Your task to perform on an android device: Check the settings for the Google Play Store app Image 0: 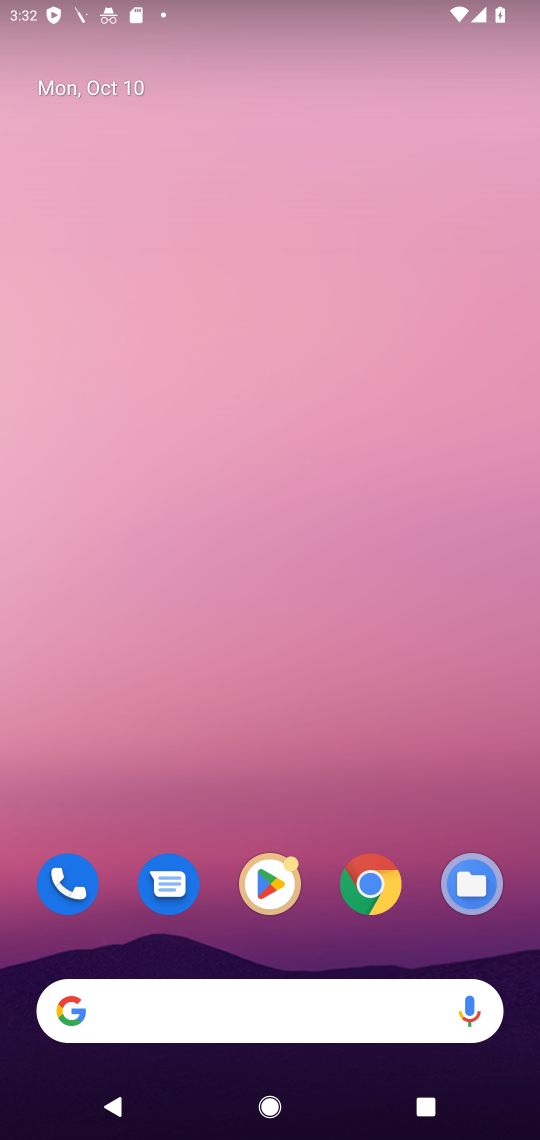
Step 0: press home button
Your task to perform on an android device: Check the settings for the Google Play Store app Image 1: 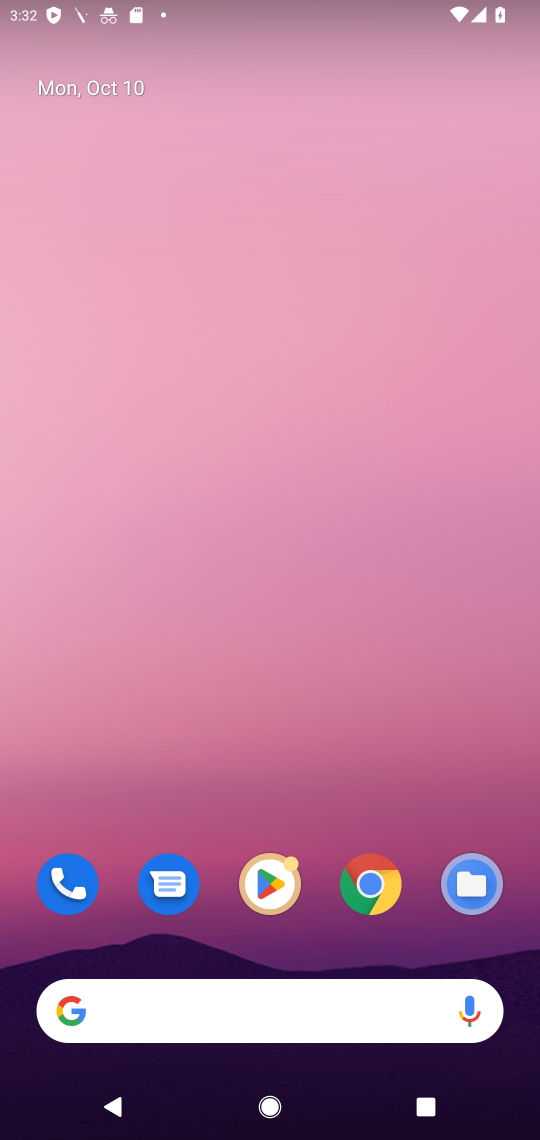
Step 1: click (264, 882)
Your task to perform on an android device: Check the settings for the Google Play Store app Image 2: 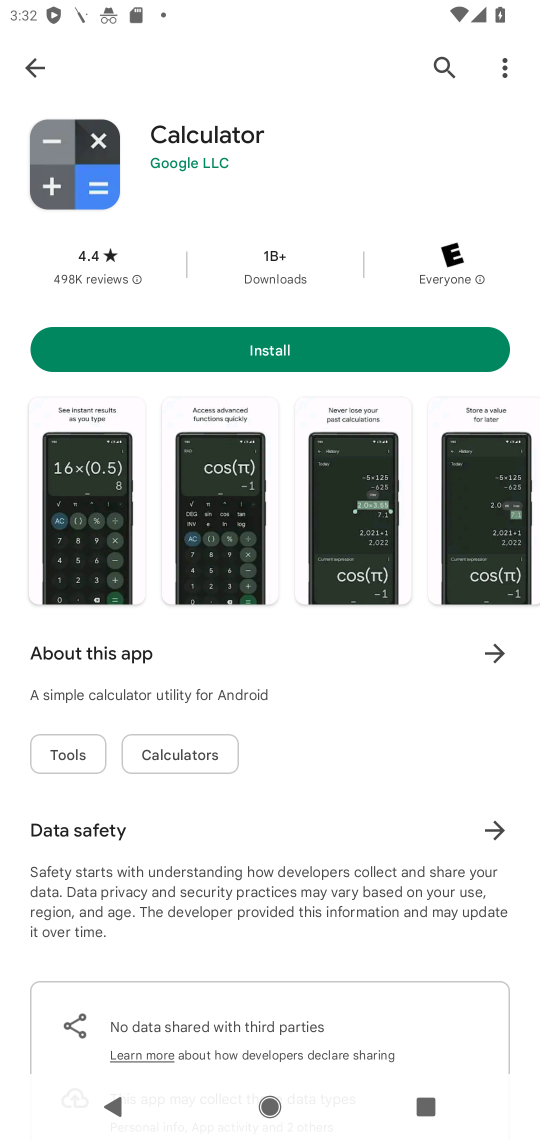
Step 2: click (37, 63)
Your task to perform on an android device: Check the settings for the Google Play Store app Image 3: 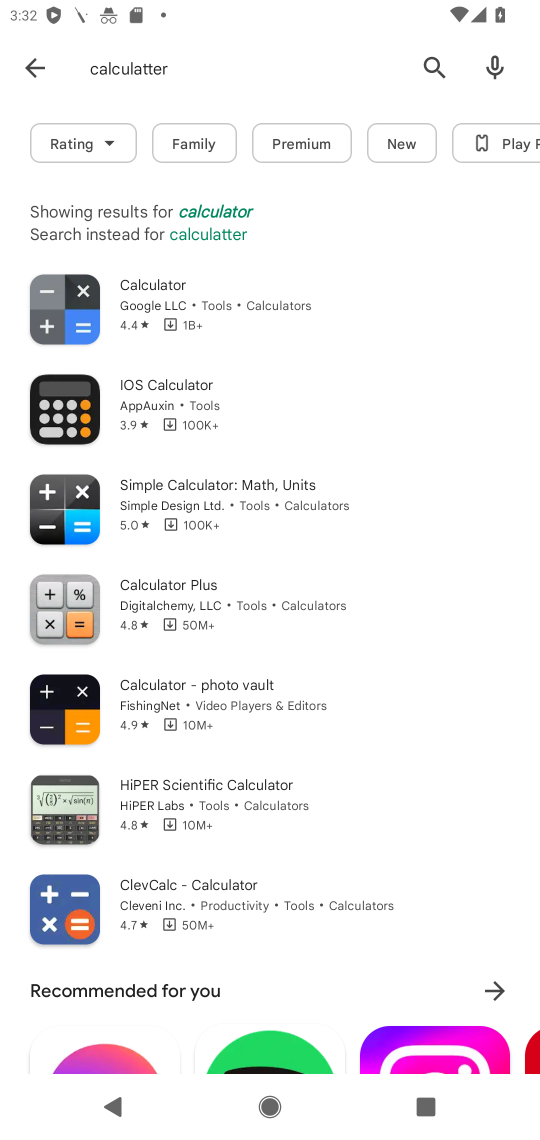
Step 3: click (30, 63)
Your task to perform on an android device: Check the settings for the Google Play Store app Image 4: 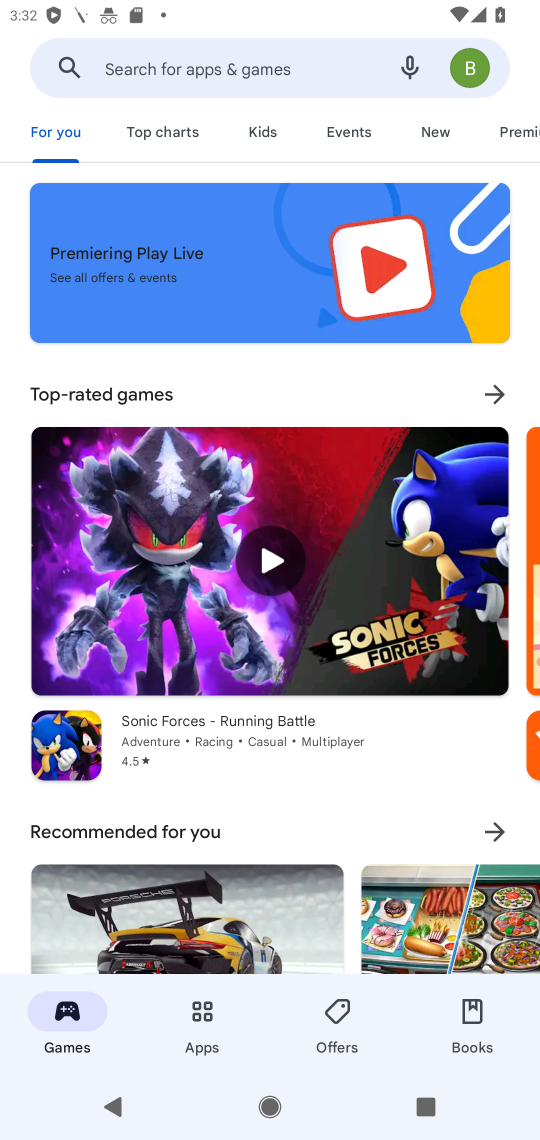
Step 4: click (478, 72)
Your task to perform on an android device: Check the settings for the Google Play Store app Image 5: 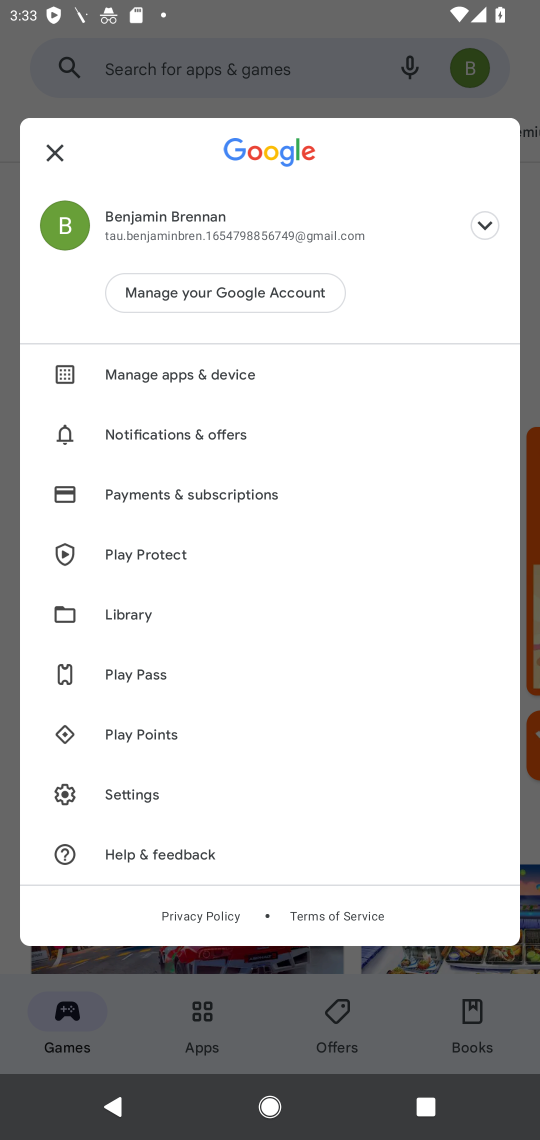
Step 5: click (130, 778)
Your task to perform on an android device: Check the settings for the Google Play Store app Image 6: 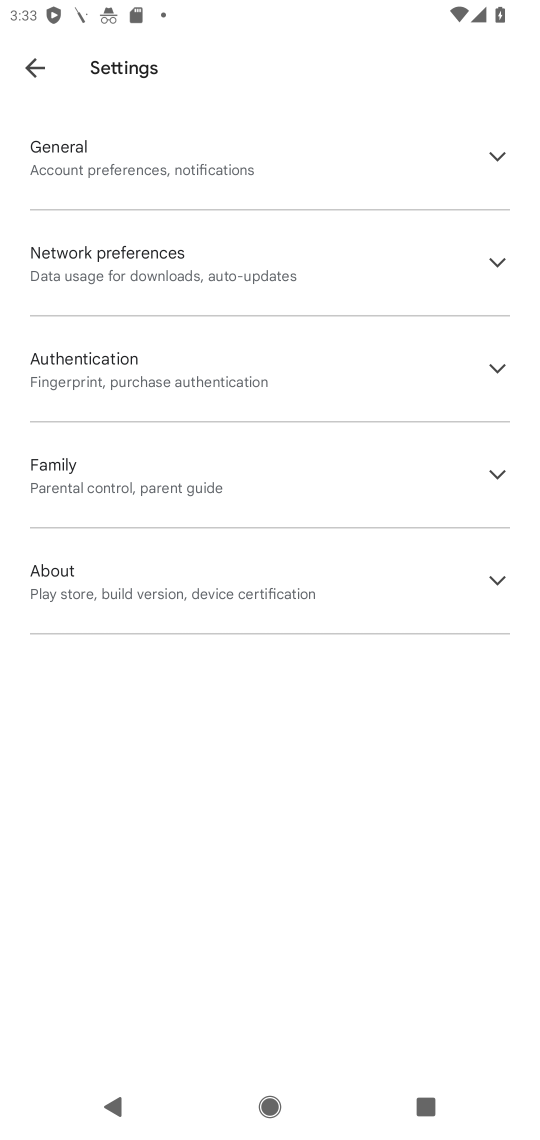
Step 6: task complete